Your task to perform on an android device: turn off sleep mode Image 0: 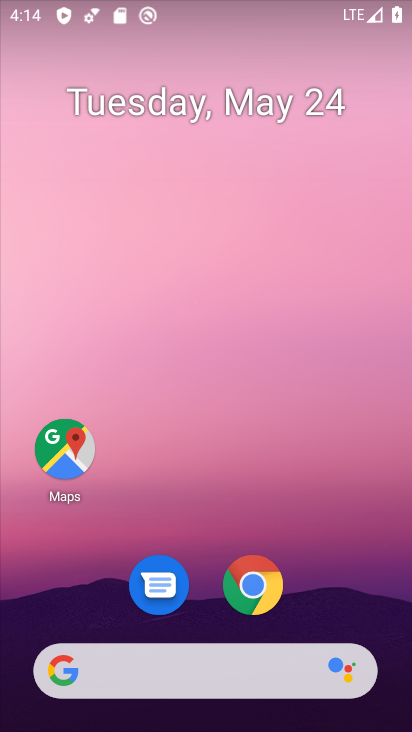
Step 0: drag from (272, 462) to (278, 59)
Your task to perform on an android device: turn off sleep mode Image 1: 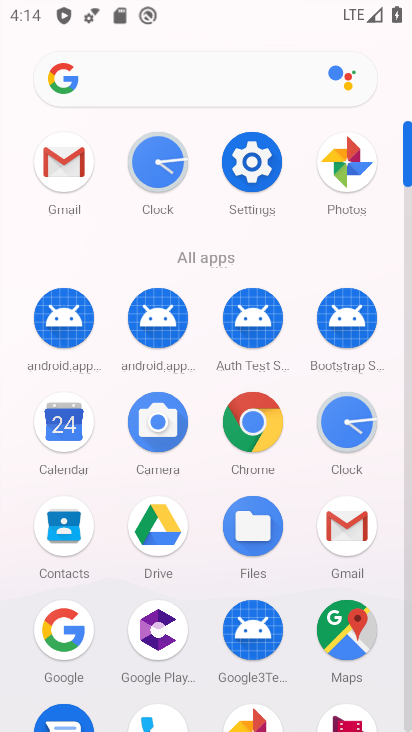
Step 1: click (255, 162)
Your task to perform on an android device: turn off sleep mode Image 2: 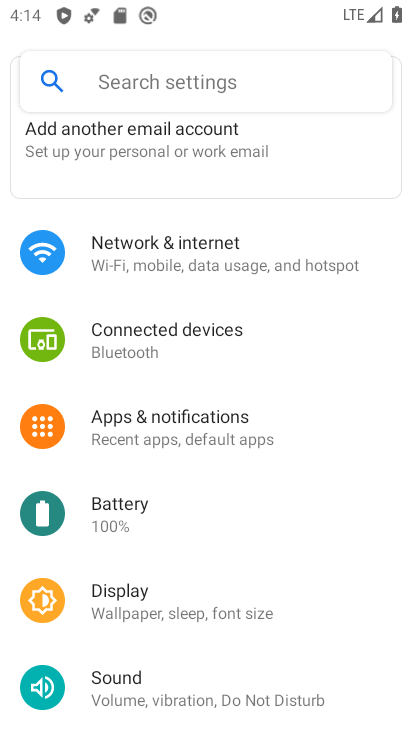
Step 2: click (218, 598)
Your task to perform on an android device: turn off sleep mode Image 3: 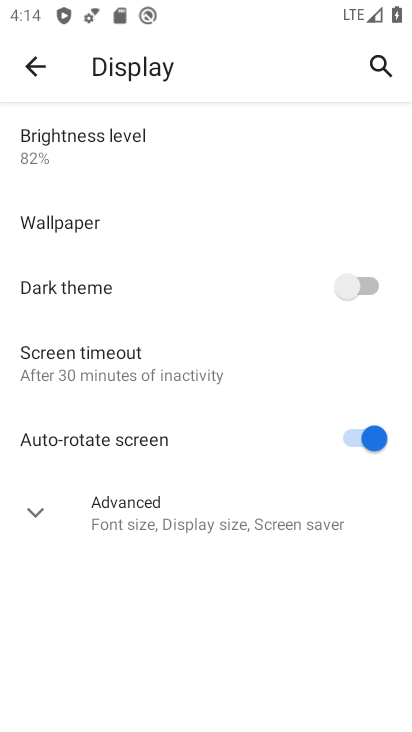
Step 3: click (35, 509)
Your task to perform on an android device: turn off sleep mode Image 4: 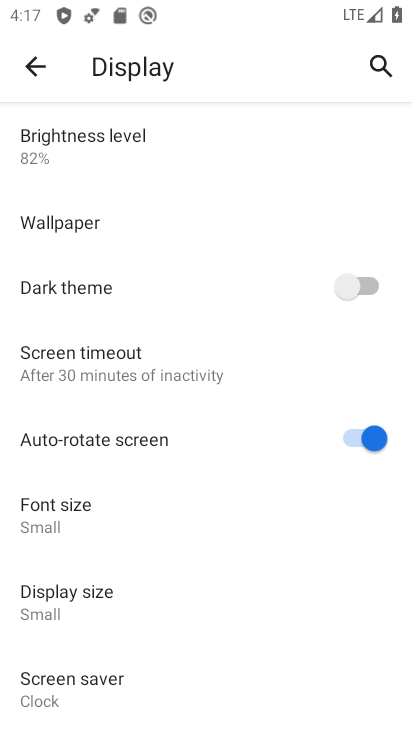
Step 4: task complete